Your task to perform on an android device: turn pop-ups on in chrome Image 0: 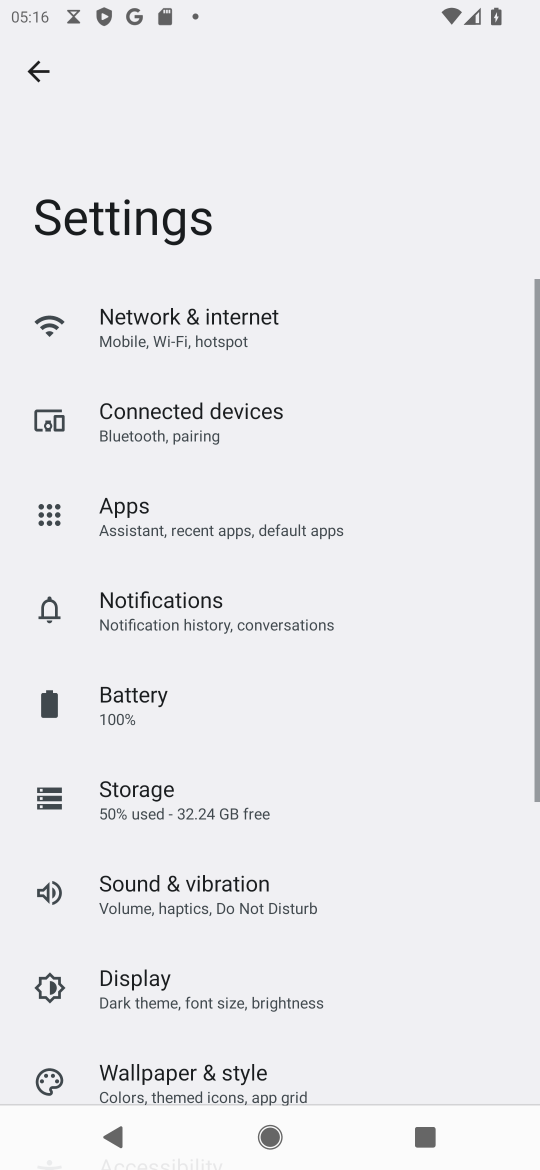
Step 0: press home button
Your task to perform on an android device: turn pop-ups on in chrome Image 1: 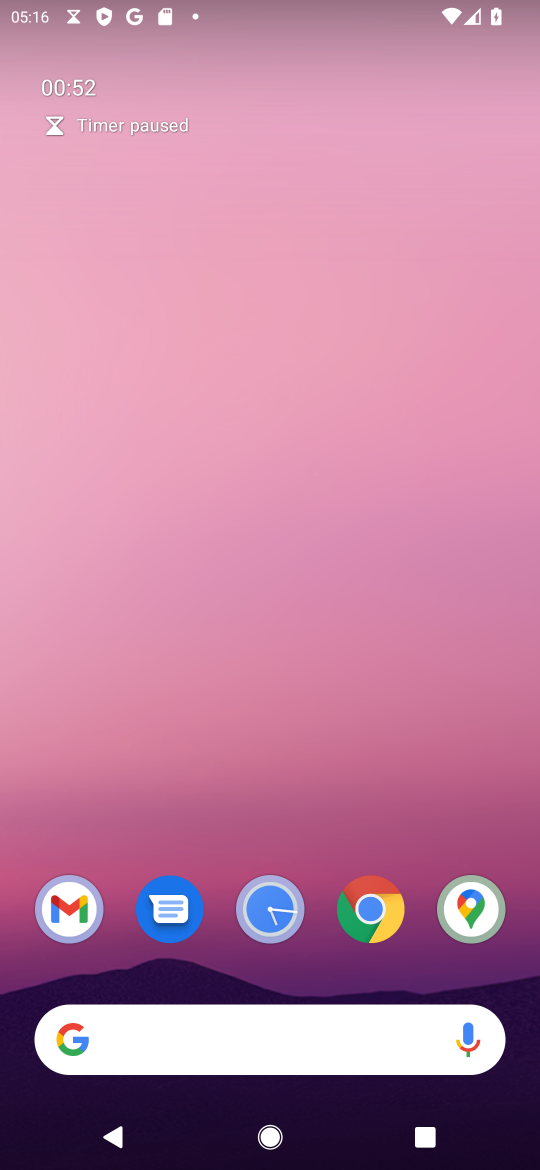
Step 1: click (370, 903)
Your task to perform on an android device: turn pop-ups on in chrome Image 2: 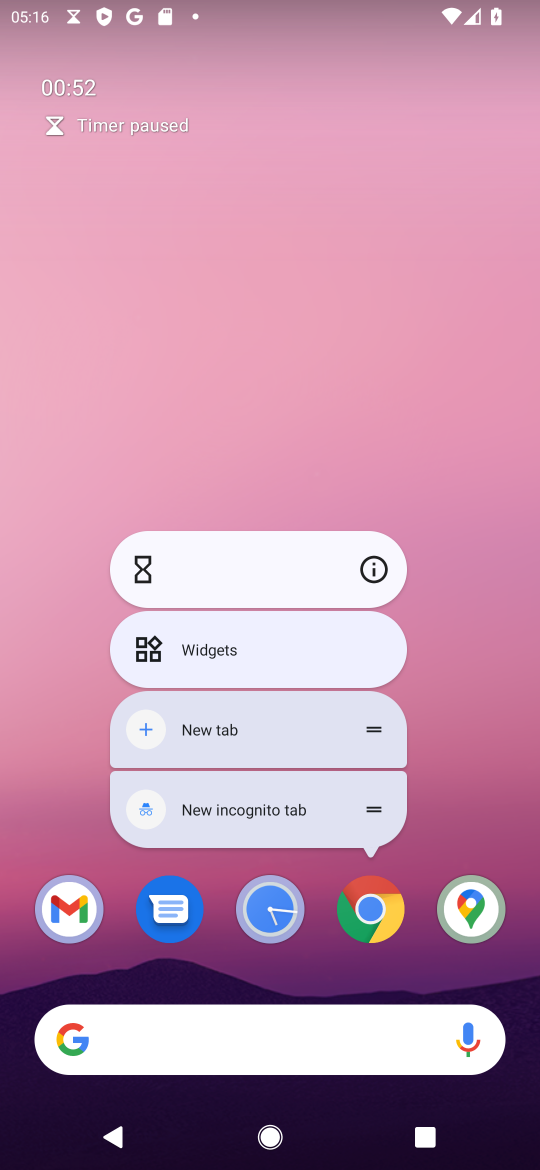
Step 2: click (379, 896)
Your task to perform on an android device: turn pop-ups on in chrome Image 3: 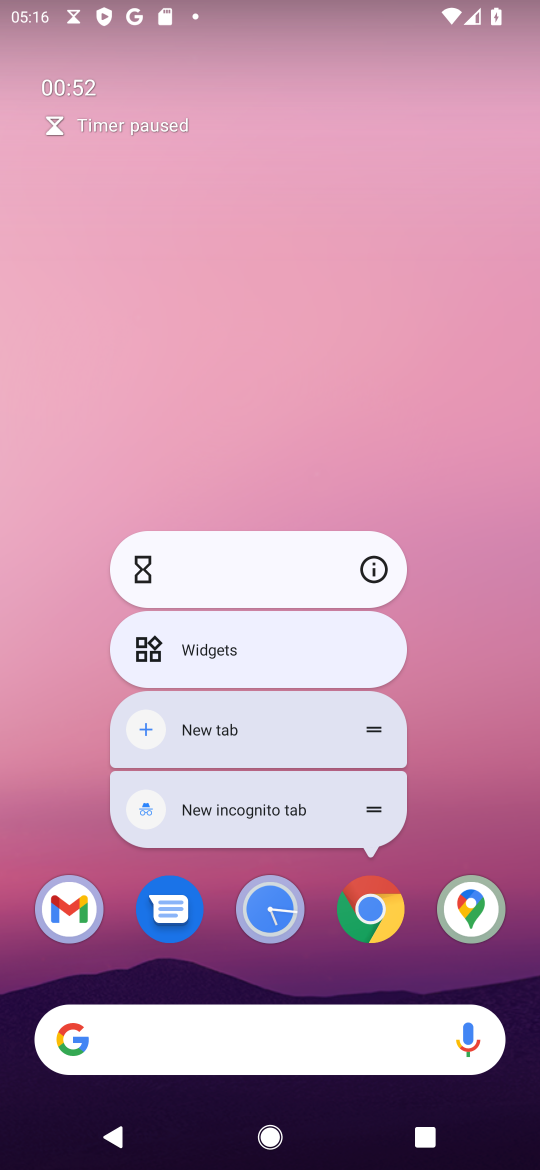
Step 3: click (364, 921)
Your task to perform on an android device: turn pop-ups on in chrome Image 4: 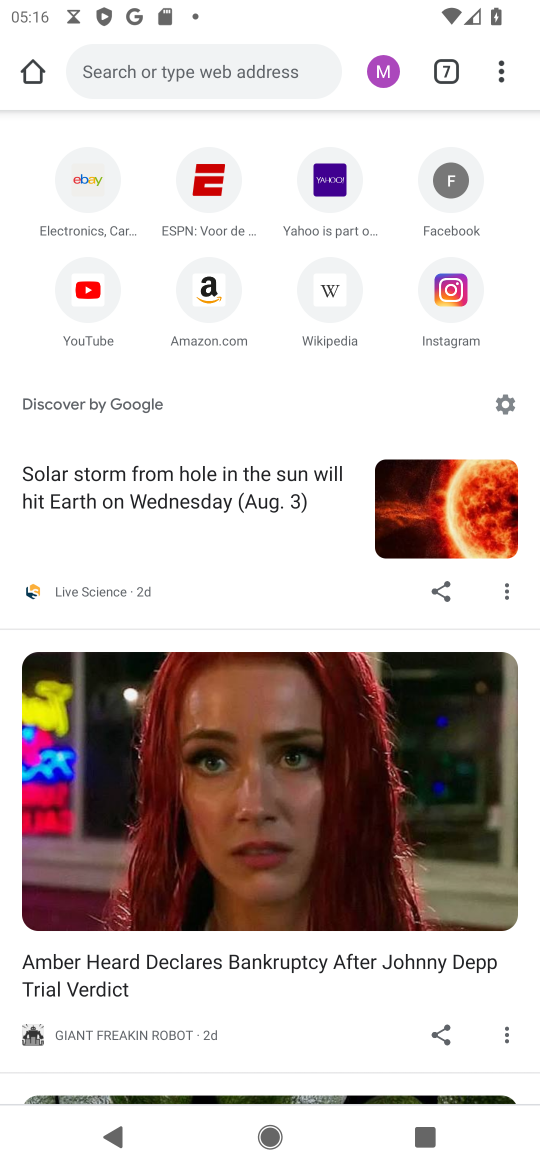
Step 4: drag from (501, 75) to (317, 714)
Your task to perform on an android device: turn pop-ups on in chrome Image 5: 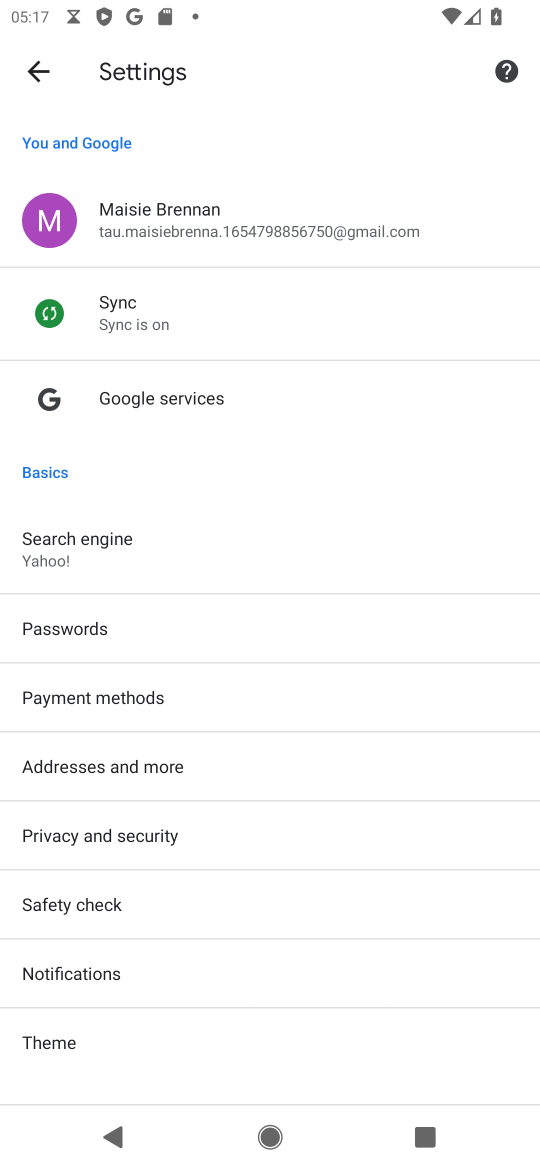
Step 5: drag from (245, 956) to (463, 409)
Your task to perform on an android device: turn pop-ups on in chrome Image 6: 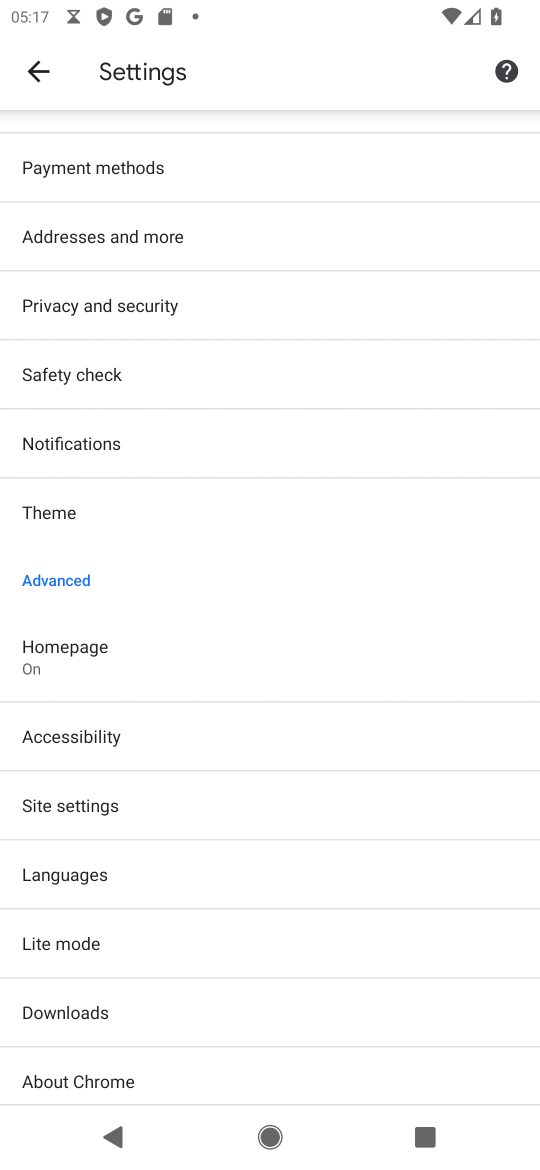
Step 6: click (79, 807)
Your task to perform on an android device: turn pop-ups on in chrome Image 7: 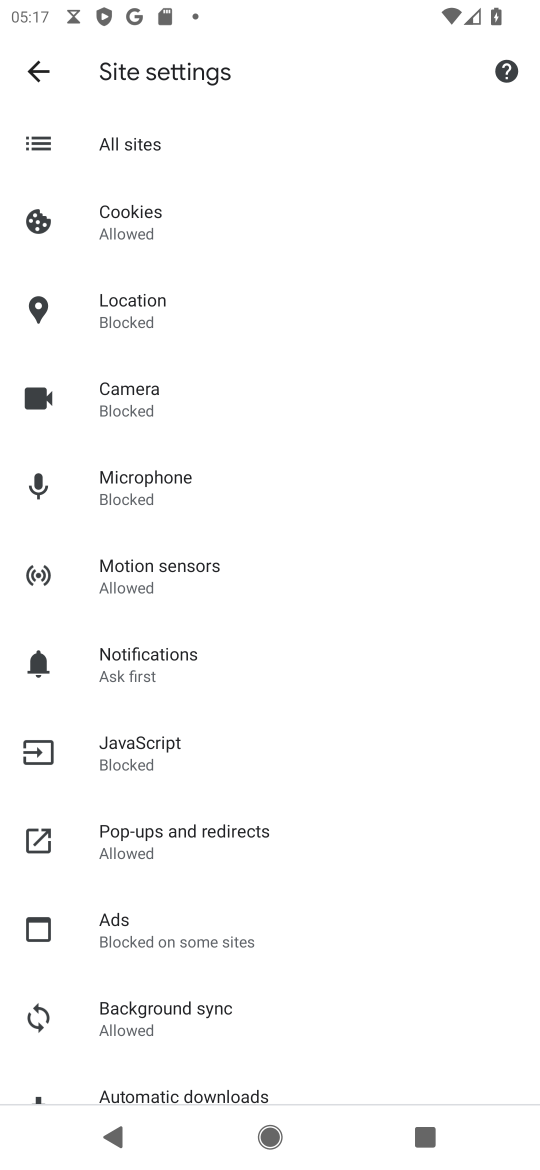
Step 7: click (191, 835)
Your task to perform on an android device: turn pop-ups on in chrome Image 8: 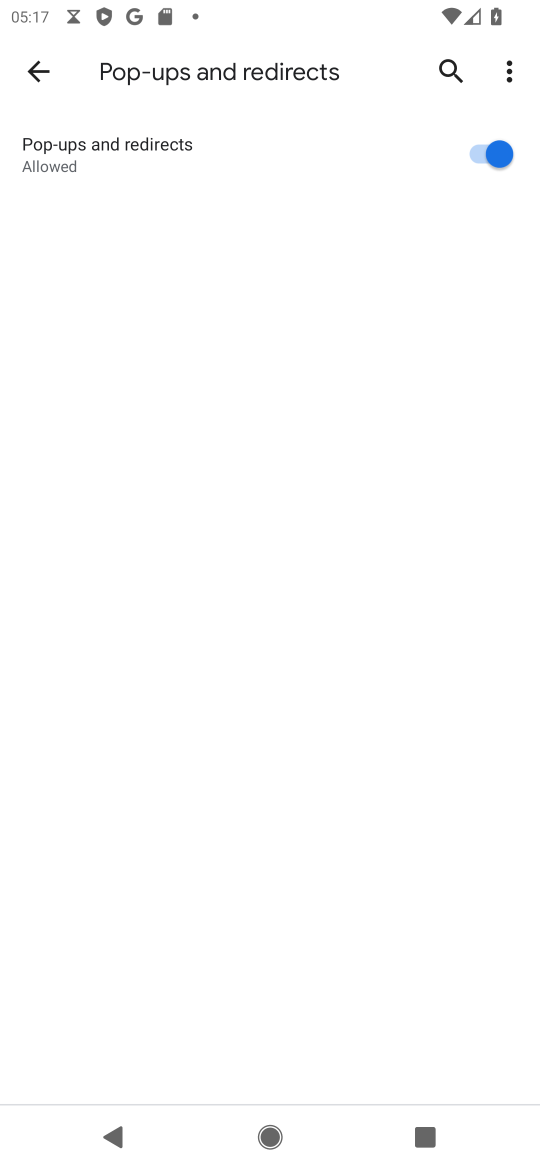
Step 8: task complete